Your task to perform on an android device: What is the capital of China? Image 0: 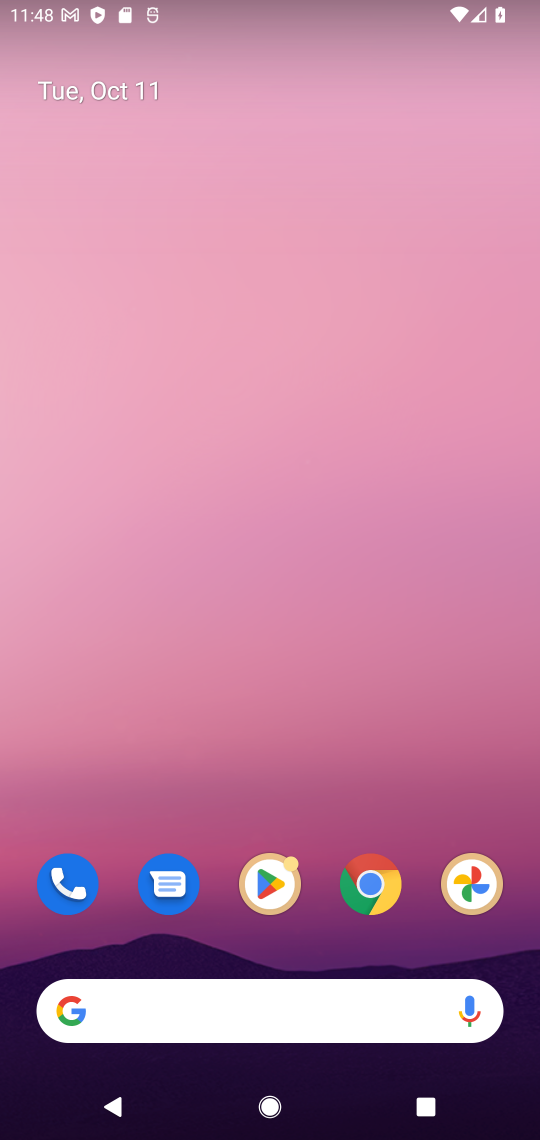
Step 0: drag from (279, 621) to (285, 119)
Your task to perform on an android device: What is the capital of China? Image 1: 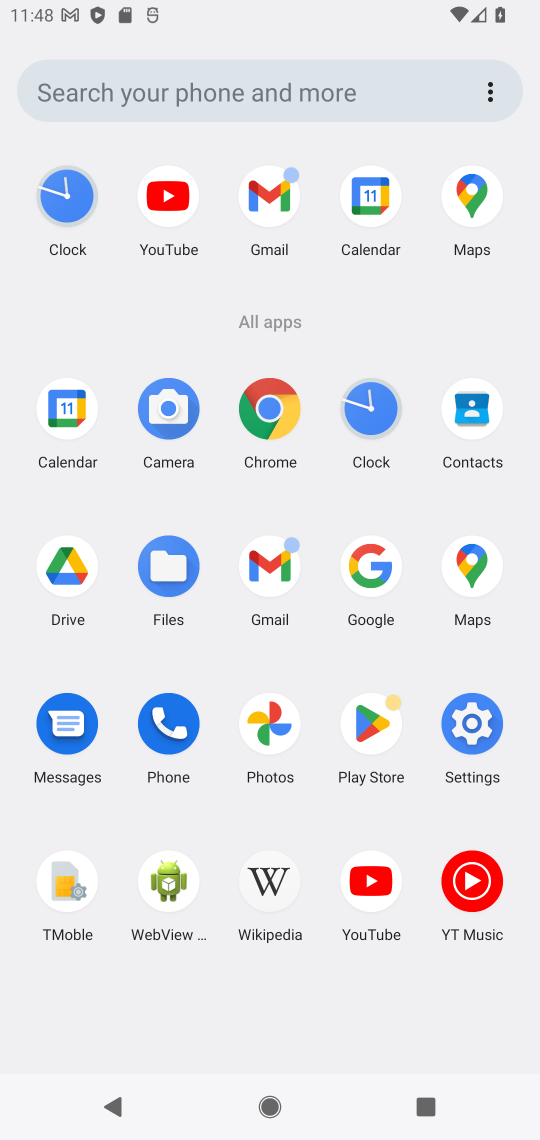
Step 1: click (367, 571)
Your task to perform on an android device: What is the capital of China? Image 2: 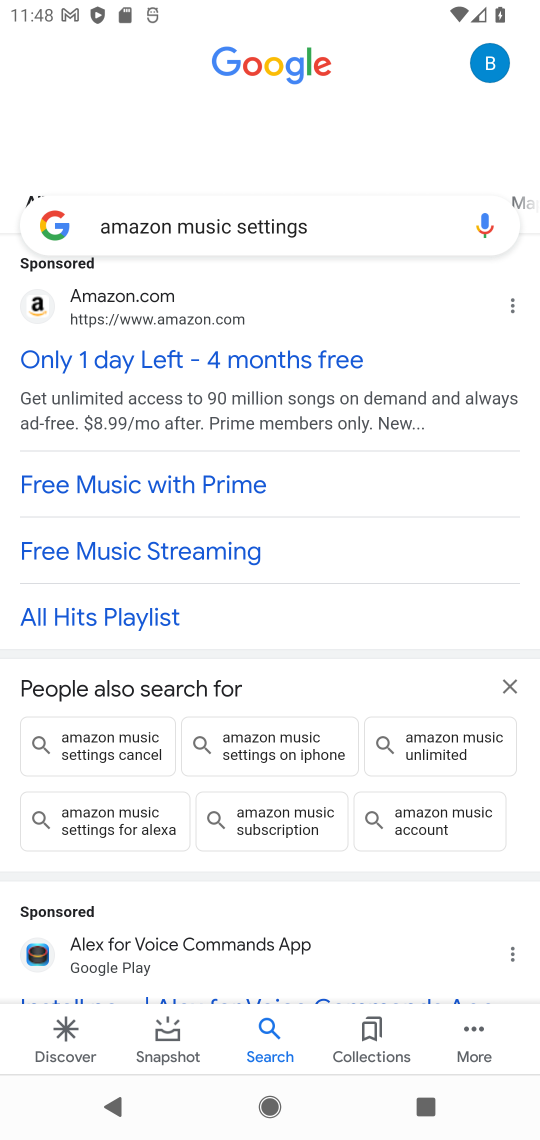
Step 2: click (330, 224)
Your task to perform on an android device: What is the capital of China? Image 3: 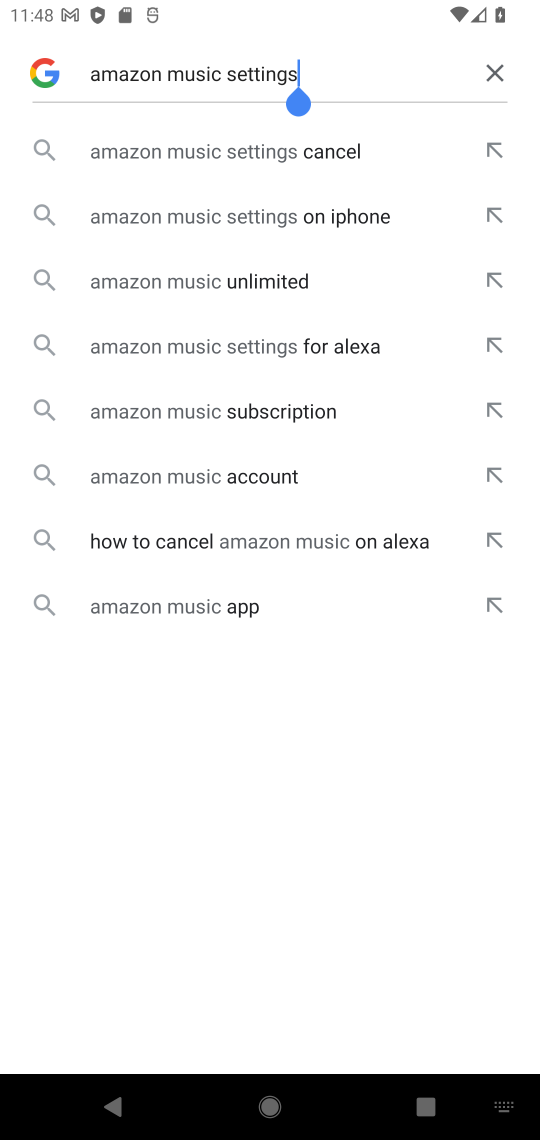
Step 3: click (500, 63)
Your task to perform on an android device: What is the capital of China? Image 4: 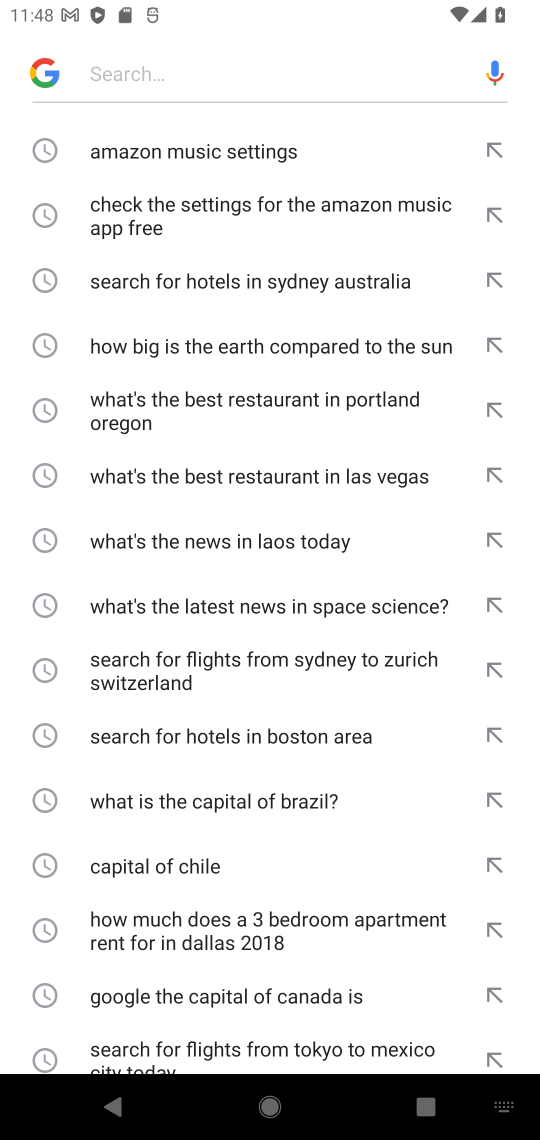
Step 4: type "What is the capital of China?"
Your task to perform on an android device: What is the capital of China? Image 5: 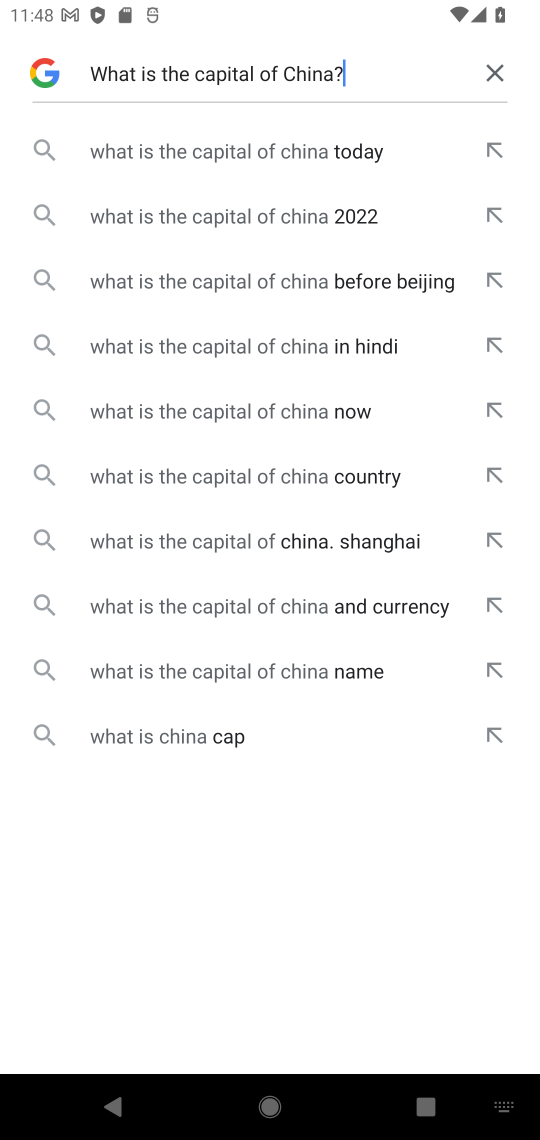
Step 5: click (341, 161)
Your task to perform on an android device: What is the capital of China? Image 6: 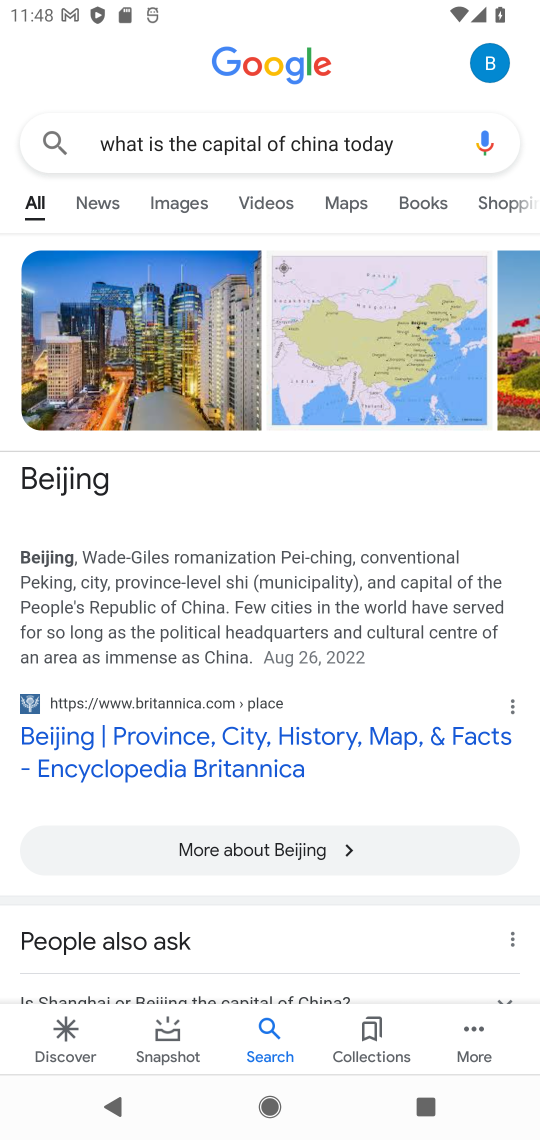
Step 6: task complete